Your task to perform on an android device: Go to Wikipedia Image 0: 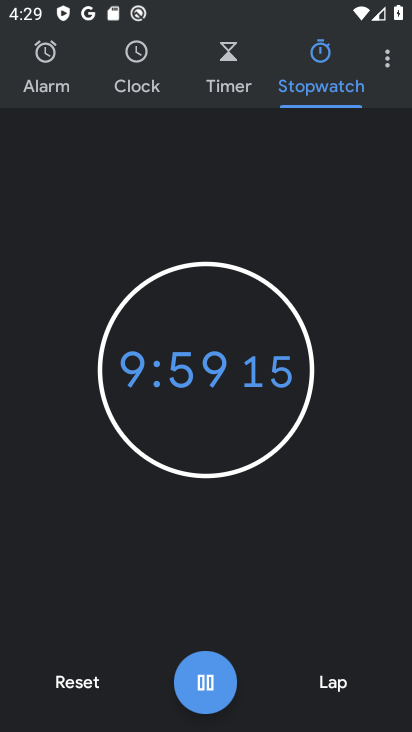
Step 0: click (387, 65)
Your task to perform on an android device: Go to Wikipedia Image 1: 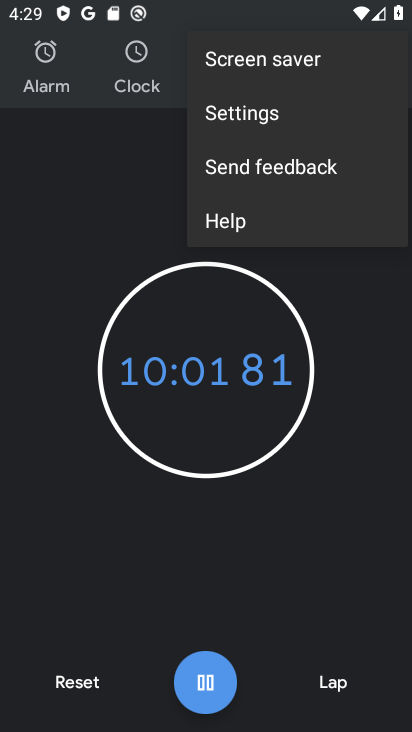
Step 1: click (261, 121)
Your task to perform on an android device: Go to Wikipedia Image 2: 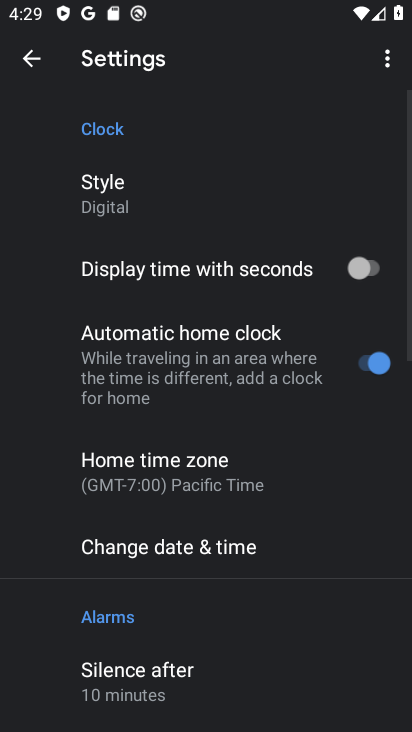
Step 2: press home button
Your task to perform on an android device: Go to Wikipedia Image 3: 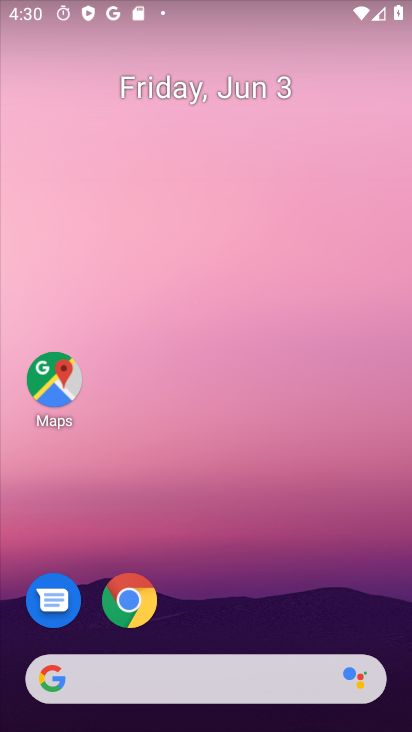
Step 3: click (156, 597)
Your task to perform on an android device: Go to Wikipedia Image 4: 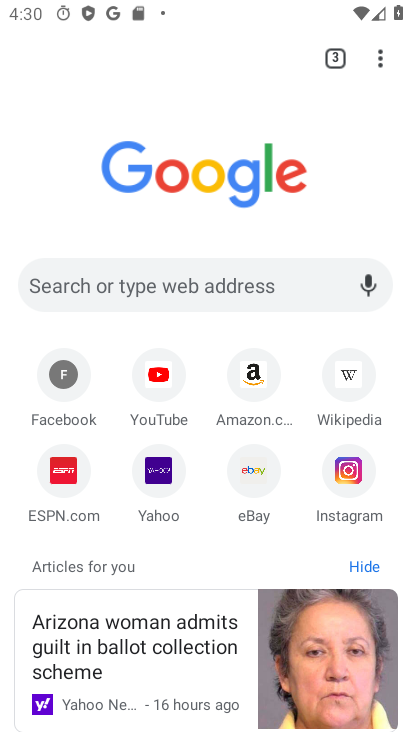
Step 4: click (203, 296)
Your task to perform on an android device: Go to Wikipedia Image 5: 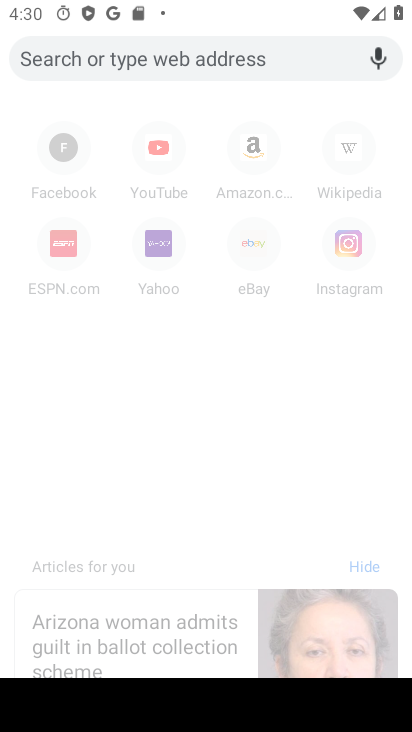
Step 5: type "Wikipedia"
Your task to perform on an android device: Go to Wikipedia Image 6: 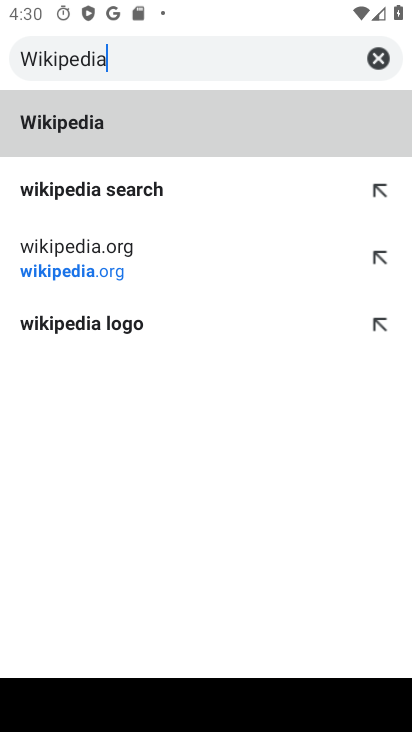
Step 6: click (43, 123)
Your task to perform on an android device: Go to Wikipedia Image 7: 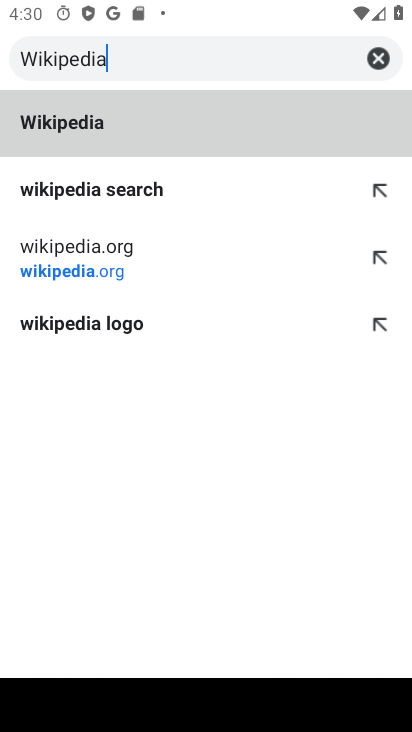
Step 7: click (32, 113)
Your task to perform on an android device: Go to Wikipedia Image 8: 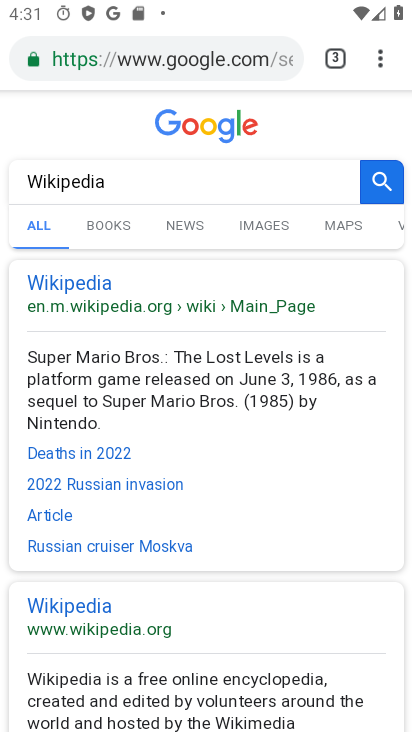
Step 8: task complete